Your task to perform on an android device: Do I have any events tomorrow? Image 0: 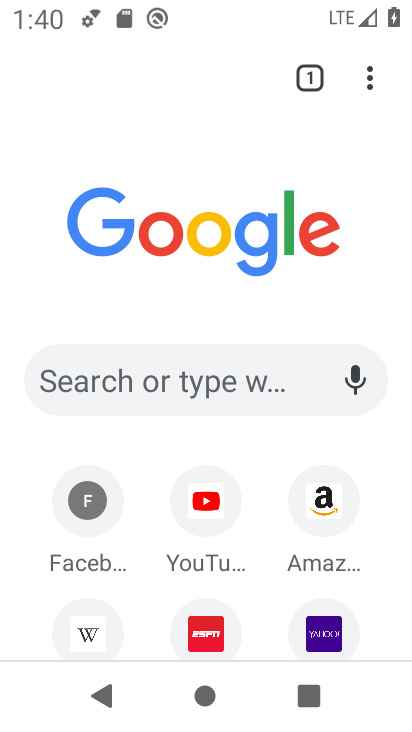
Step 0: press home button
Your task to perform on an android device: Do I have any events tomorrow? Image 1: 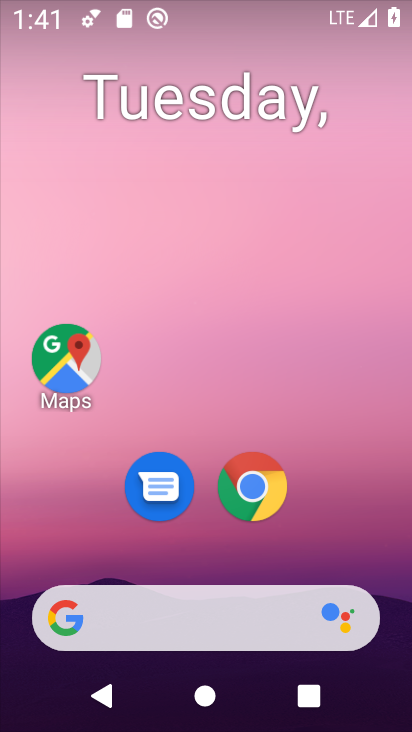
Step 1: drag from (358, 522) to (364, 199)
Your task to perform on an android device: Do I have any events tomorrow? Image 2: 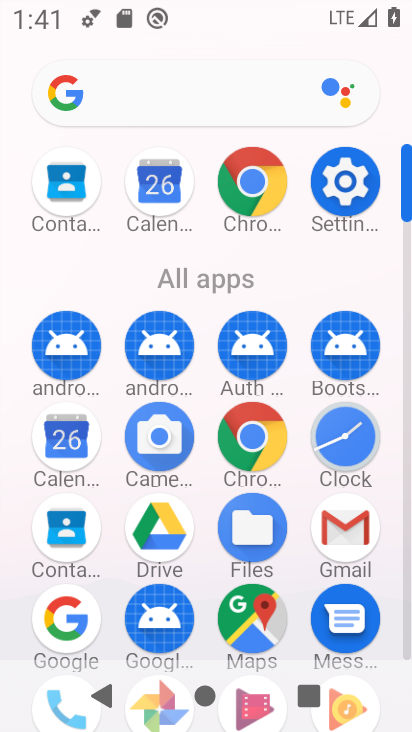
Step 2: click (74, 441)
Your task to perform on an android device: Do I have any events tomorrow? Image 3: 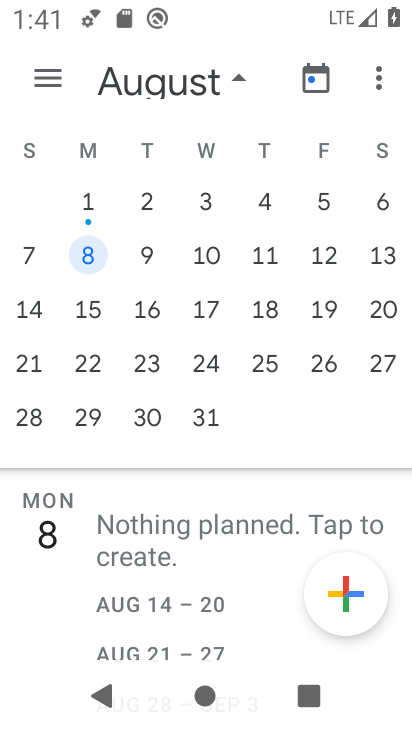
Step 3: drag from (263, 534) to (258, 215)
Your task to perform on an android device: Do I have any events tomorrow? Image 4: 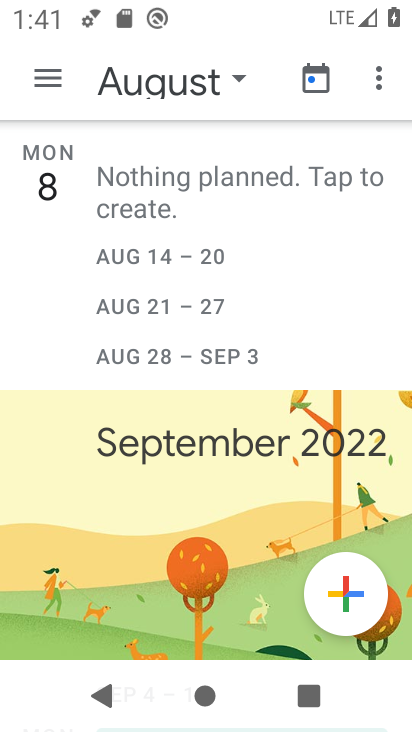
Step 4: drag from (252, 171) to (274, 293)
Your task to perform on an android device: Do I have any events tomorrow? Image 5: 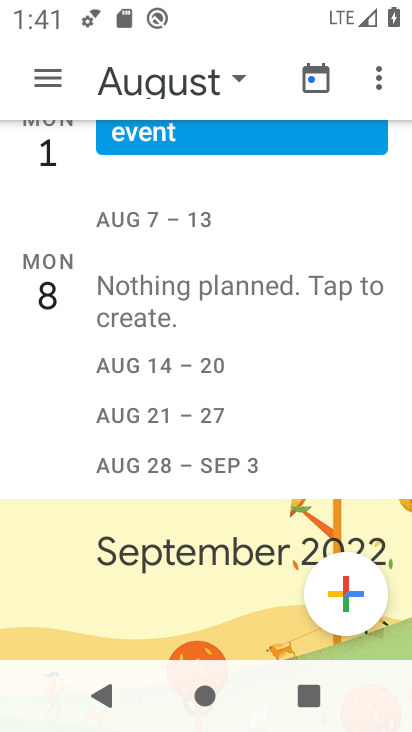
Step 5: drag from (268, 231) to (291, 382)
Your task to perform on an android device: Do I have any events tomorrow? Image 6: 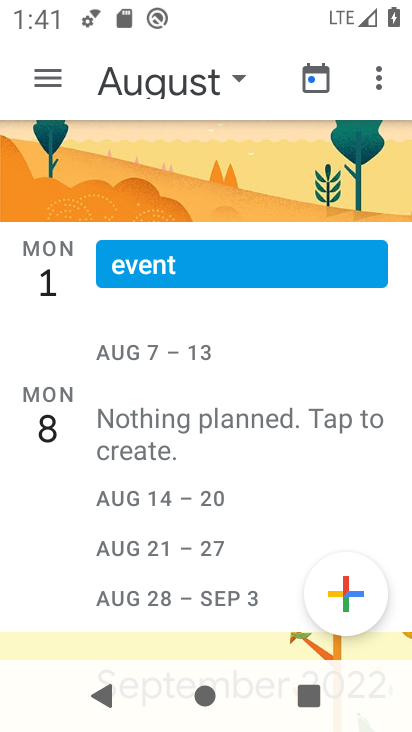
Step 6: drag from (230, 136) to (269, 358)
Your task to perform on an android device: Do I have any events tomorrow? Image 7: 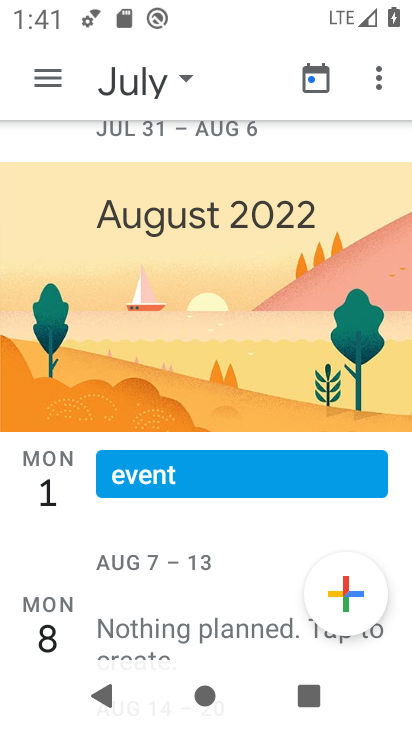
Step 7: drag from (246, 134) to (278, 371)
Your task to perform on an android device: Do I have any events tomorrow? Image 8: 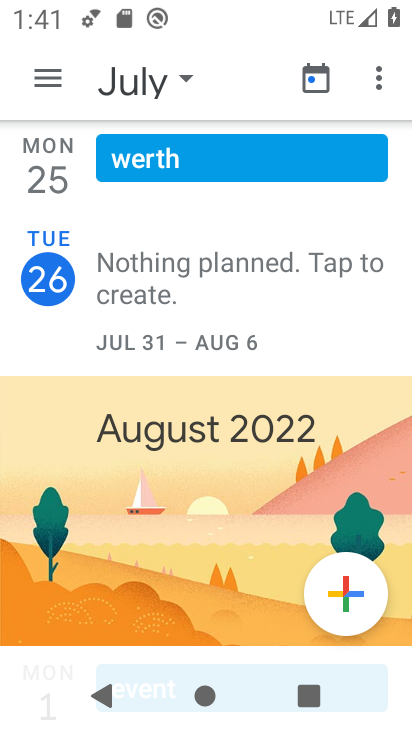
Step 8: click (173, 75)
Your task to perform on an android device: Do I have any events tomorrow? Image 9: 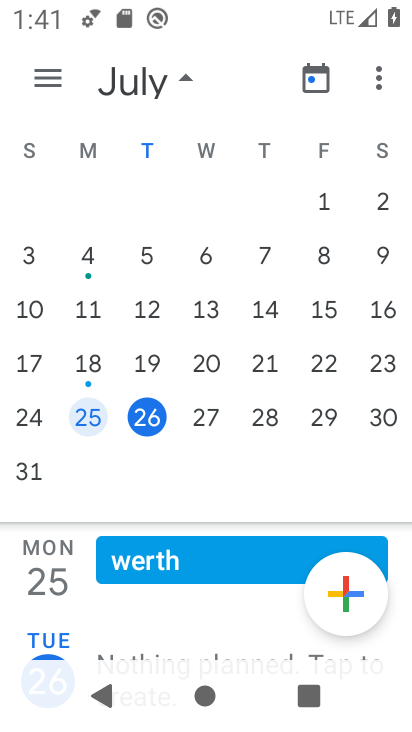
Step 9: click (208, 416)
Your task to perform on an android device: Do I have any events tomorrow? Image 10: 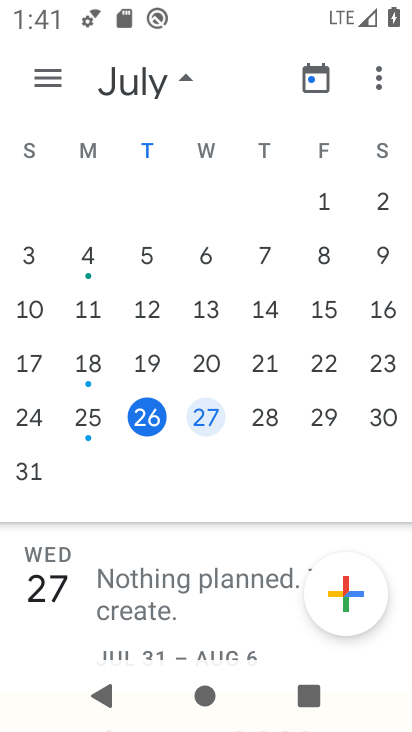
Step 10: task complete